Your task to perform on an android device: find which apps use the phone's location Image 0: 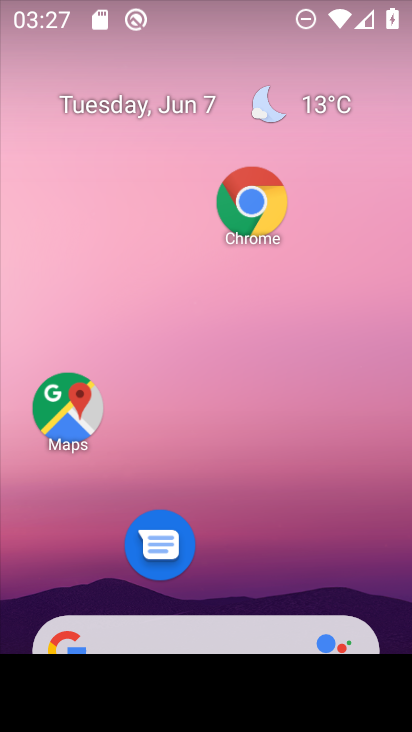
Step 0: drag from (285, 599) to (295, 223)
Your task to perform on an android device: find which apps use the phone's location Image 1: 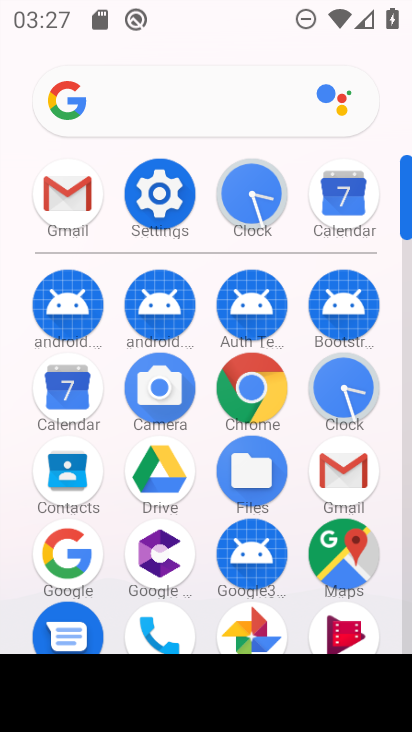
Step 1: click (168, 192)
Your task to perform on an android device: find which apps use the phone's location Image 2: 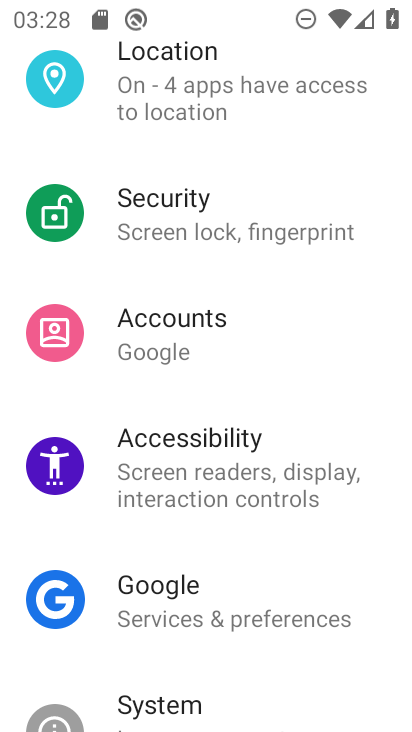
Step 2: click (221, 61)
Your task to perform on an android device: find which apps use the phone's location Image 3: 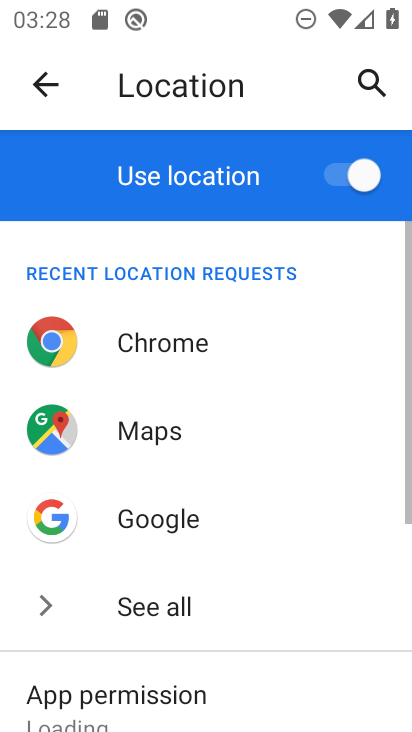
Step 3: task complete